Your task to perform on an android device: turn on sleep mode Image 0: 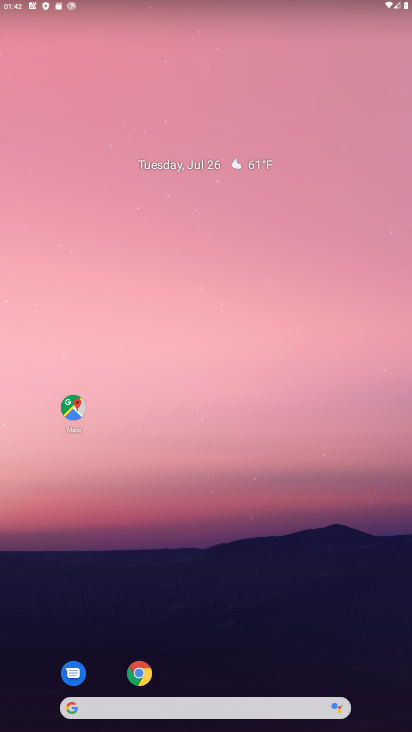
Step 0: drag from (239, 716) to (262, 241)
Your task to perform on an android device: turn on sleep mode Image 1: 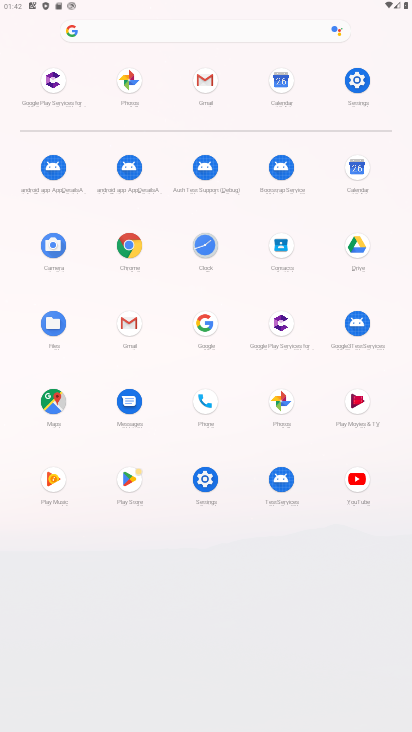
Step 1: click (359, 78)
Your task to perform on an android device: turn on sleep mode Image 2: 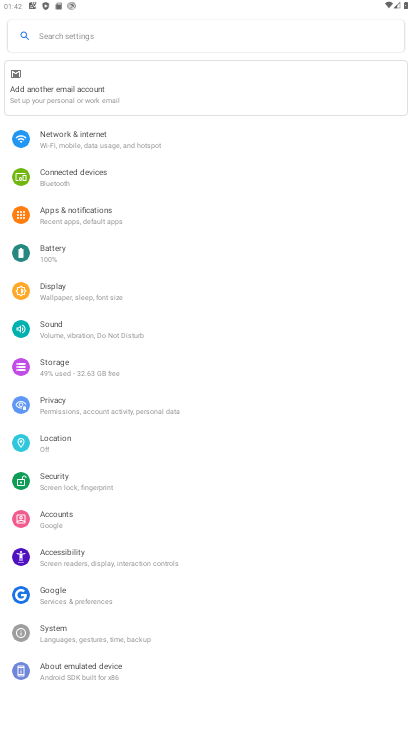
Step 2: click (61, 294)
Your task to perform on an android device: turn on sleep mode Image 3: 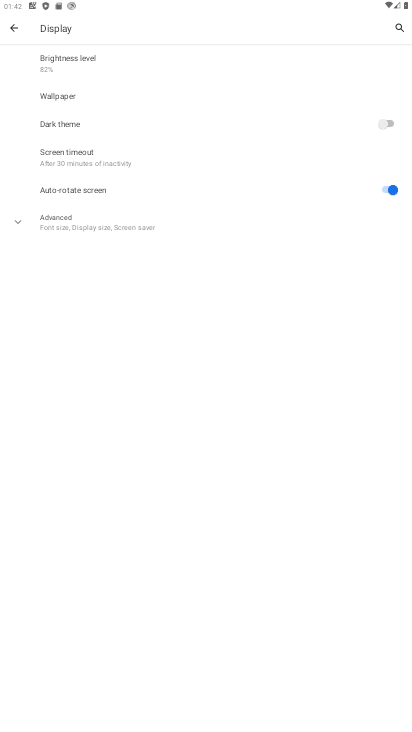
Step 3: task complete